Your task to perform on an android device: turn off translation in the chrome app Image 0: 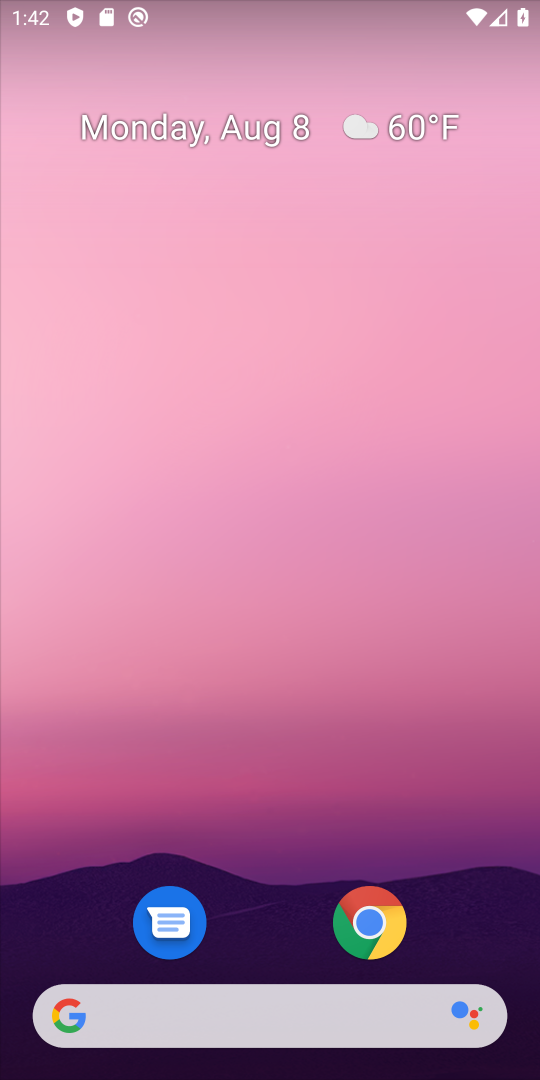
Step 0: drag from (454, 848) to (445, 153)
Your task to perform on an android device: turn off translation in the chrome app Image 1: 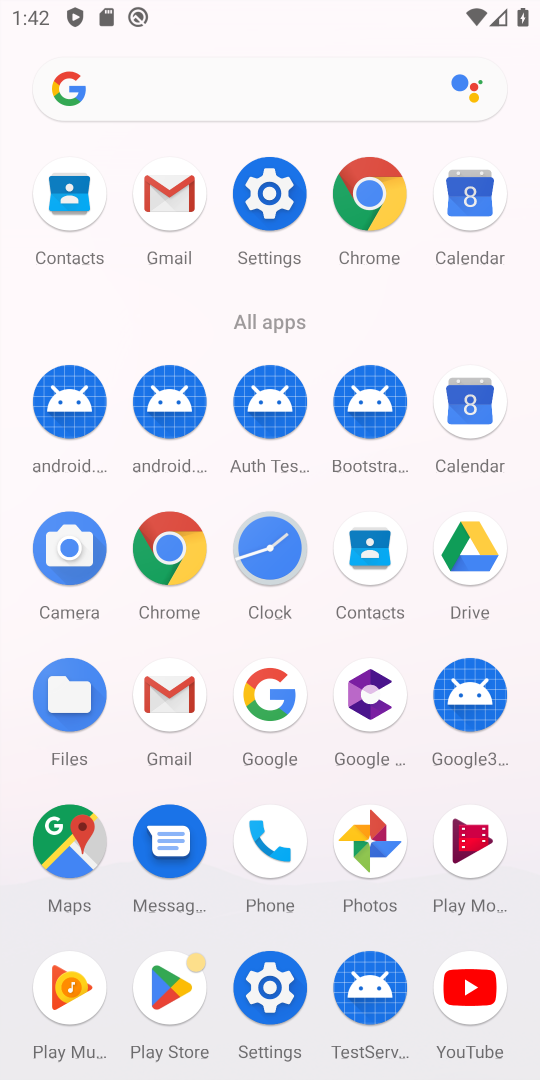
Step 1: click (152, 553)
Your task to perform on an android device: turn off translation in the chrome app Image 2: 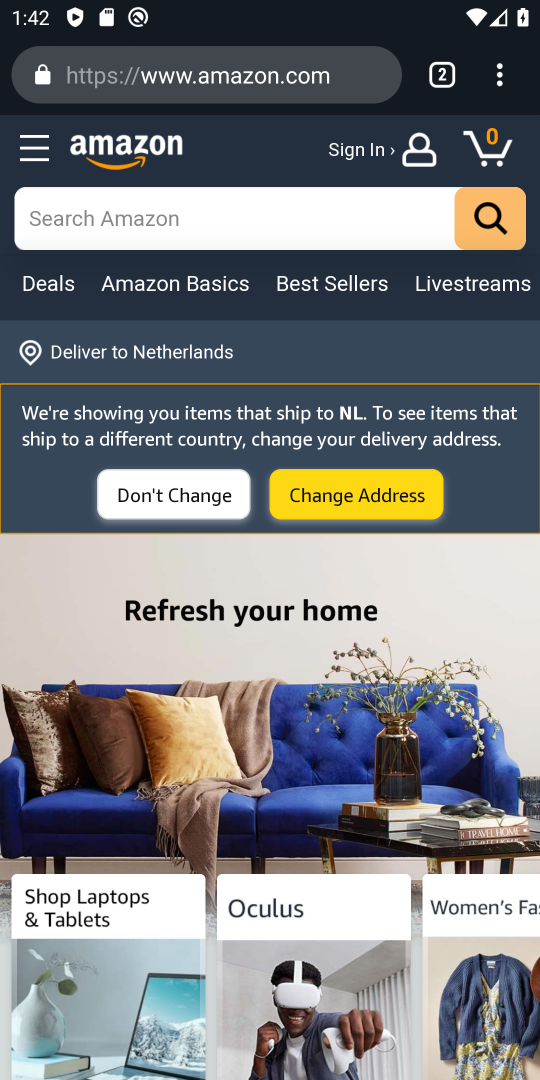
Step 2: drag from (496, 77) to (239, 960)
Your task to perform on an android device: turn off translation in the chrome app Image 3: 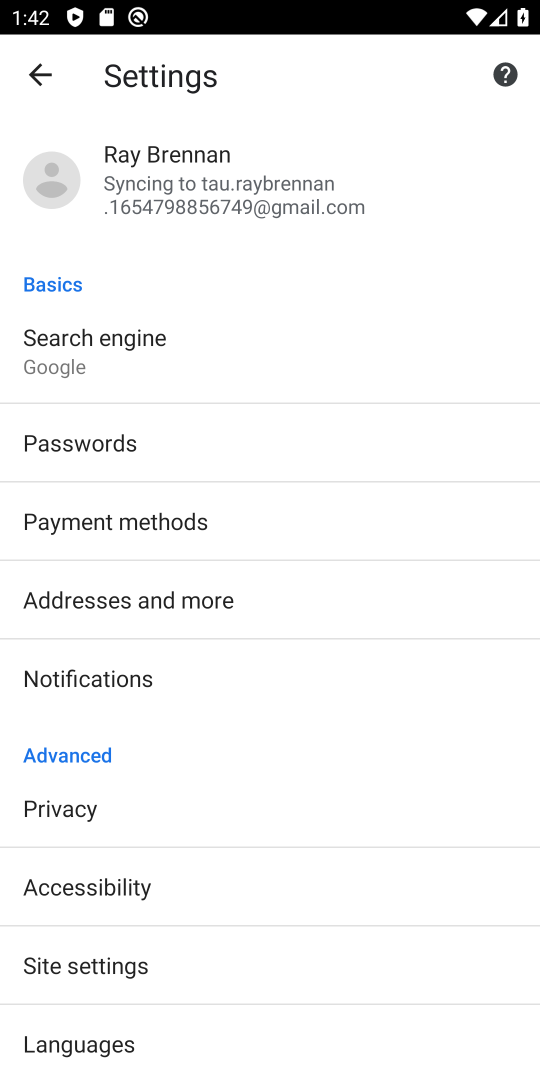
Step 3: drag from (270, 832) to (294, 197)
Your task to perform on an android device: turn off translation in the chrome app Image 4: 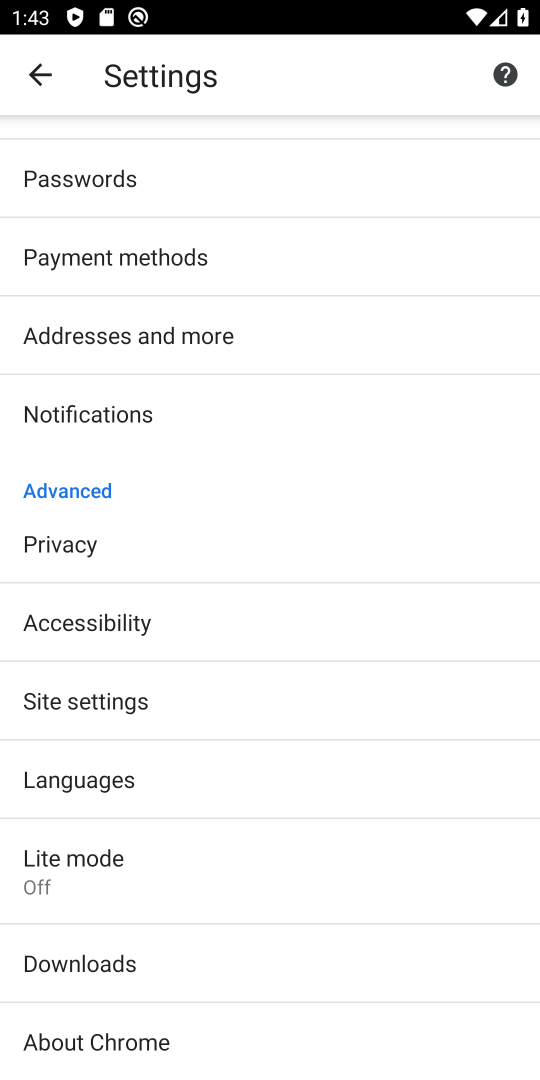
Step 4: click (122, 790)
Your task to perform on an android device: turn off translation in the chrome app Image 5: 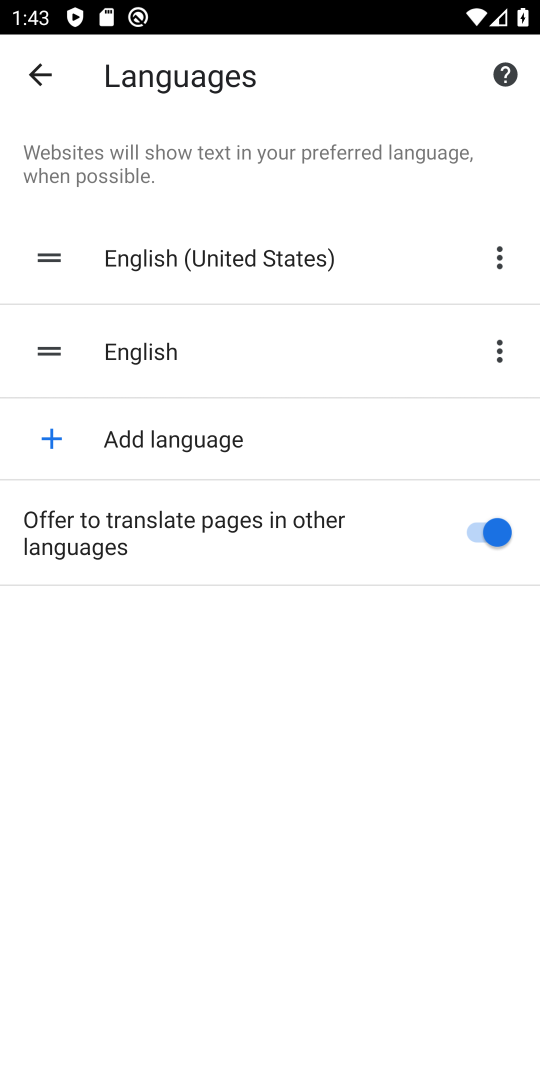
Step 5: click (456, 528)
Your task to perform on an android device: turn off translation in the chrome app Image 6: 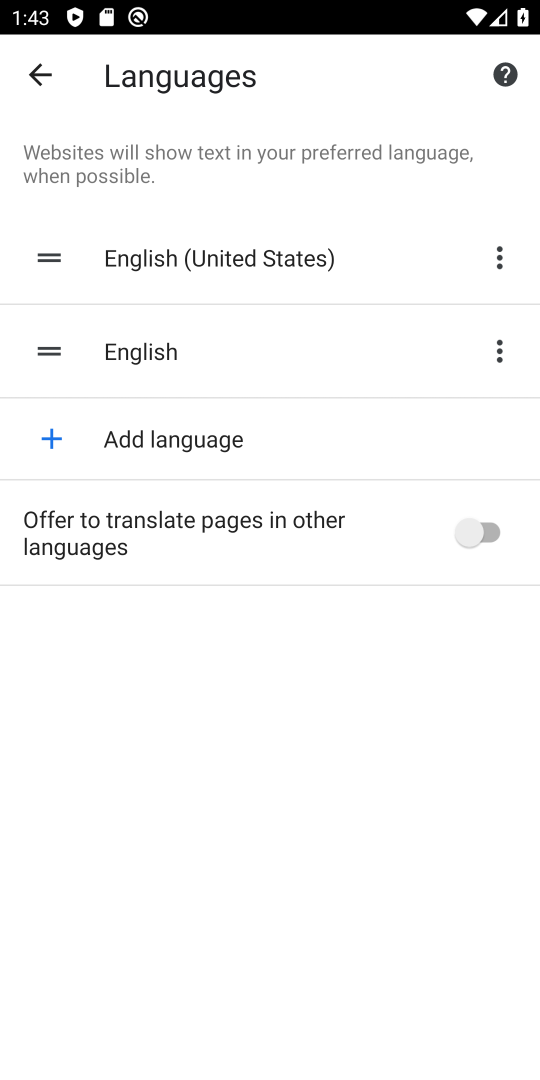
Step 6: task complete